Your task to perform on an android device: turn off location history Image 0: 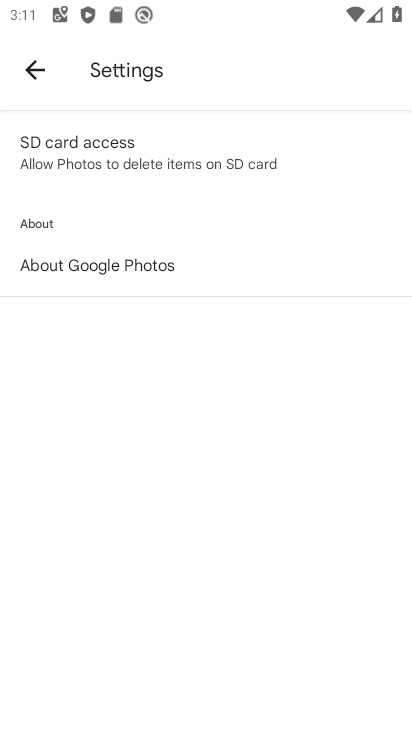
Step 0: press home button
Your task to perform on an android device: turn off location history Image 1: 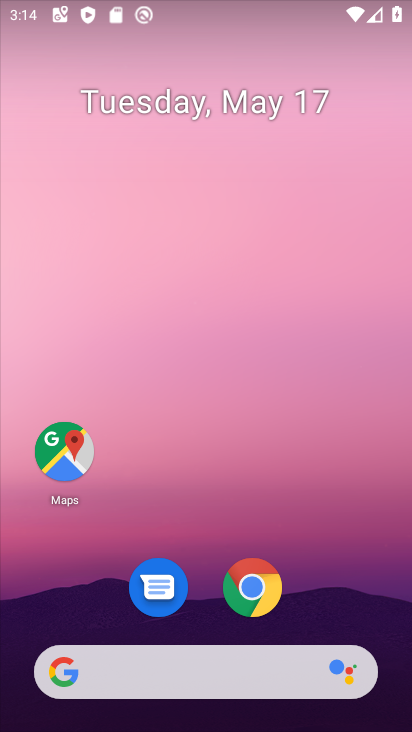
Step 1: drag from (187, 672) to (220, 86)
Your task to perform on an android device: turn off location history Image 2: 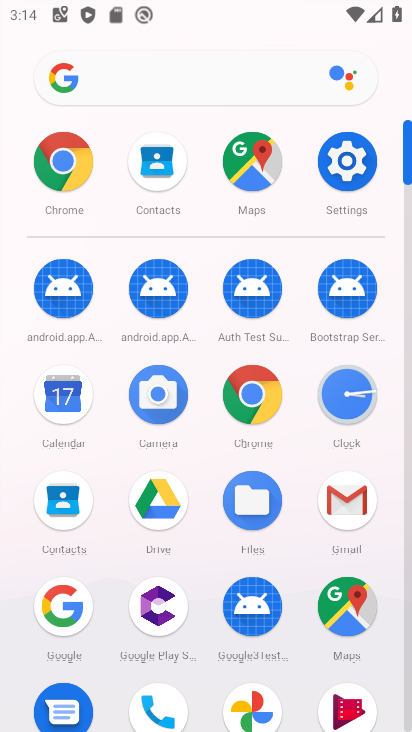
Step 2: click (340, 159)
Your task to perform on an android device: turn off location history Image 3: 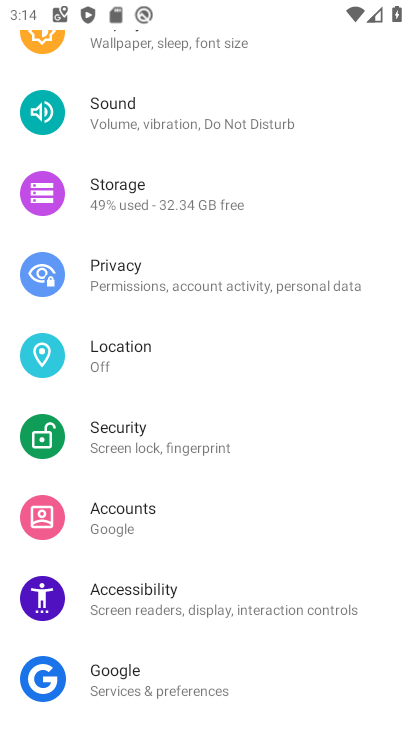
Step 3: click (155, 372)
Your task to perform on an android device: turn off location history Image 4: 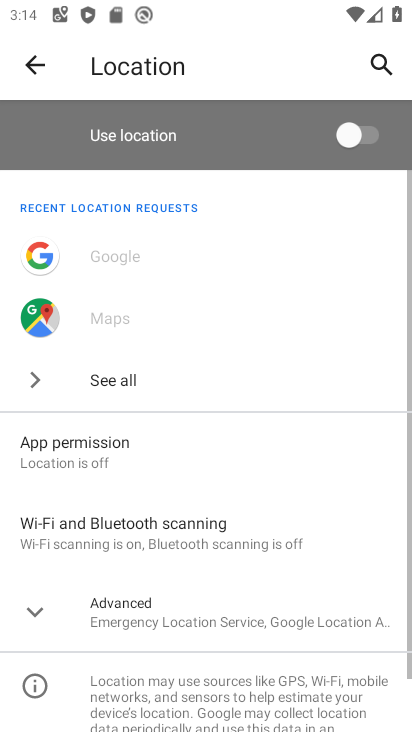
Step 4: task complete